Your task to perform on an android device: turn off javascript in the chrome app Image 0: 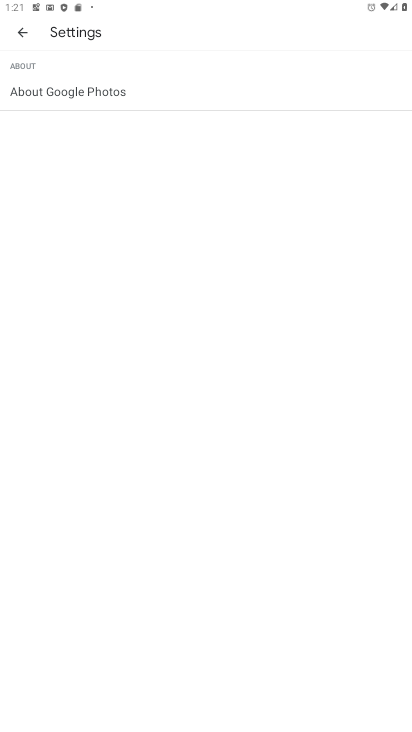
Step 0: press home button
Your task to perform on an android device: turn off javascript in the chrome app Image 1: 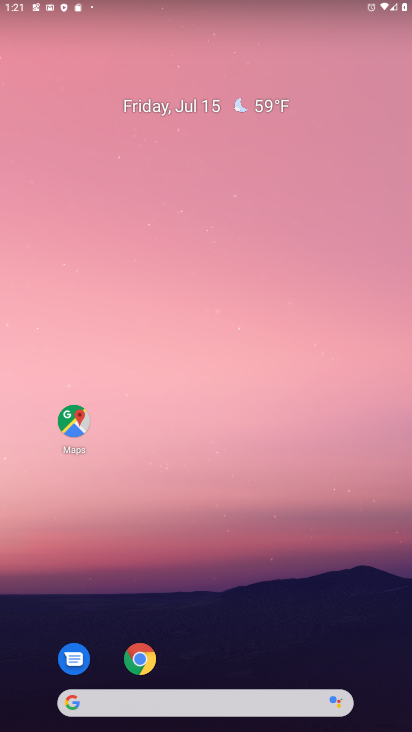
Step 1: click (141, 656)
Your task to perform on an android device: turn off javascript in the chrome app Image 2: 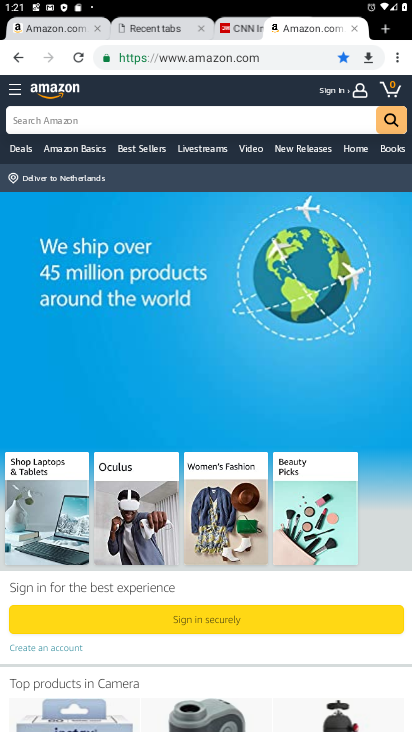
Step 2: click (396, 61)
Your task to perform on an android device: turn off javascript in the chrome app Image 3: 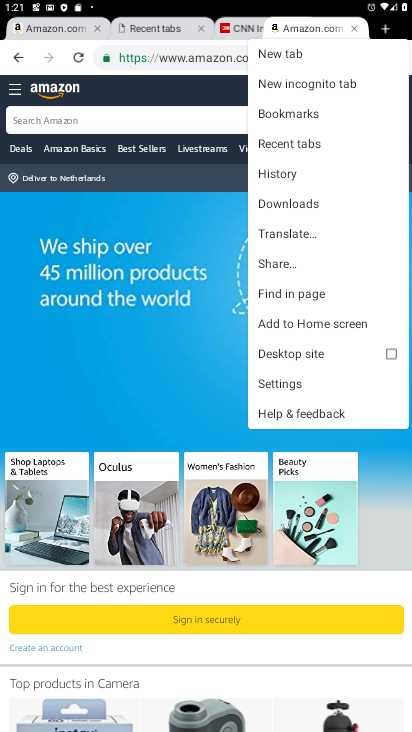
Step 3: click (283, 382)
Your task to perform on an android device: turn off javascript in the chrome app Image 4: 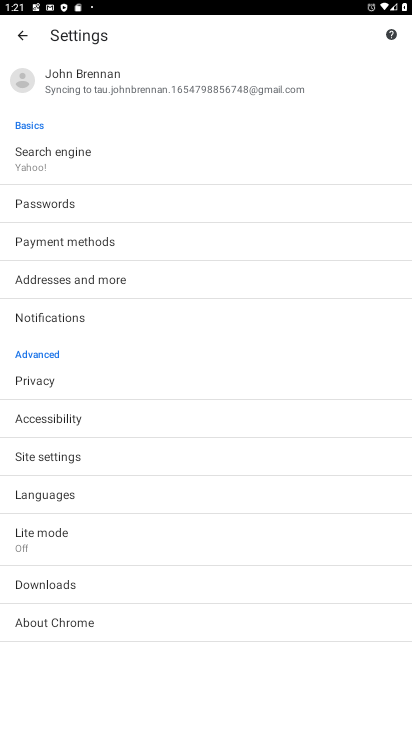
Step 4: click (56, 455)
Your task to perform on an android device: turn off javascript in the chrome app Image 5: 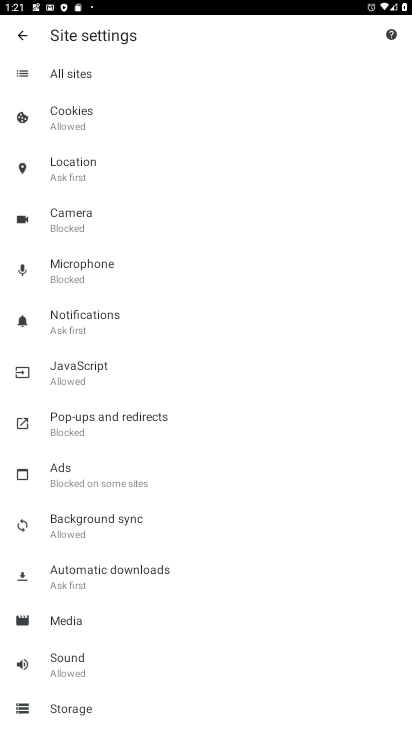
Step 5: click (68, 371)
Your task to perform on an android device: turn off javascript in the chrome app Image 6: 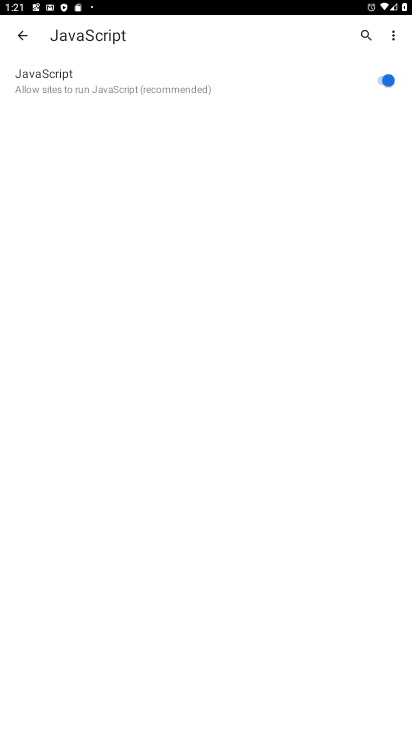
Step 6: task complete